Your task to perform on an android device: open app "Life360: Find Family & Friends" (install if not already installed), go to login, and select forgot password Image 0: 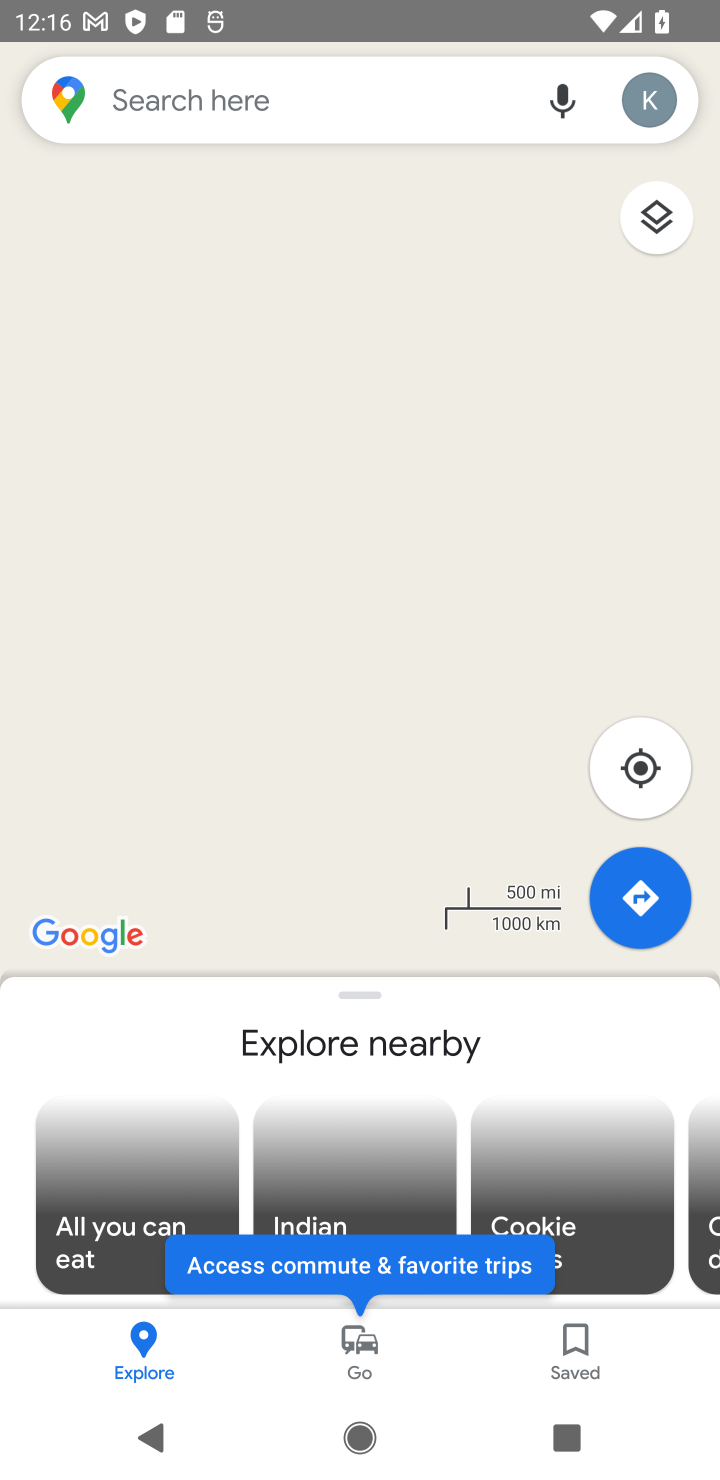
Step 0: press home button
Your task to perform on an android device: open app "Life360: Find Family & Friends" (install if not already installed), go to login, and select forgot password Image 1: 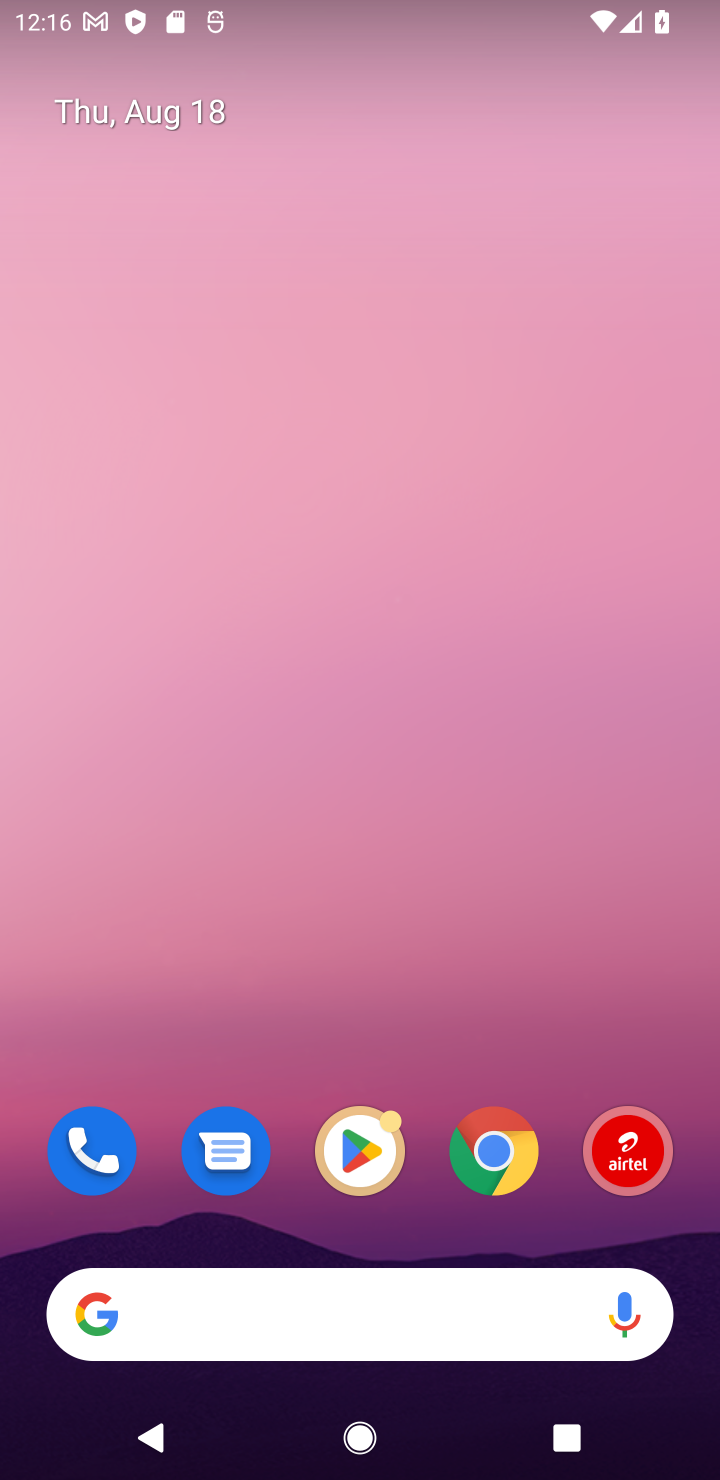
Step 1: drag from (375, 1187) to (327, 251)
Your task to perform on an android device: open app "Life360: Find Family & Friends" (install if not already installed), go to login, and select forgot password Image 2: 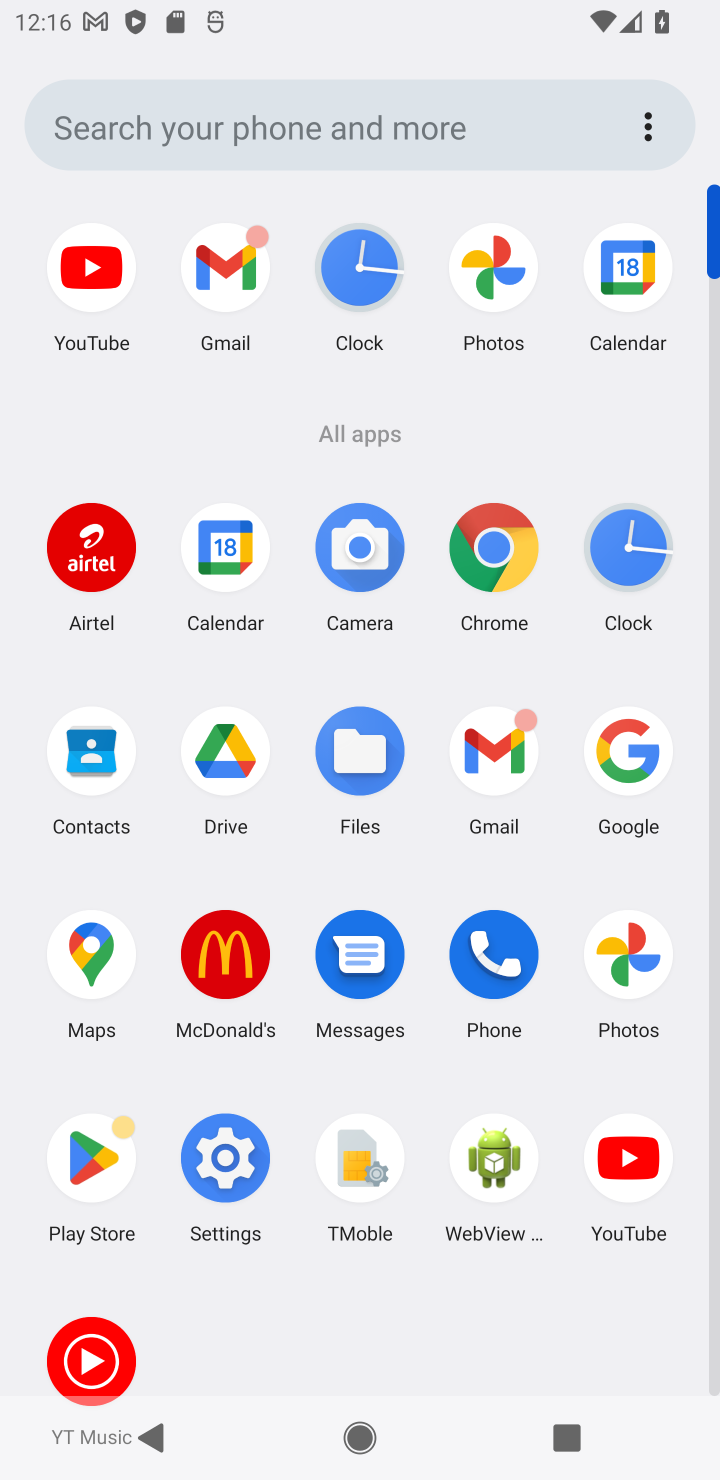
Step 2: click (92, 1146)
Your task to perform on an android device: open app "Life360: Find Family & Friends" (install if not already installed), go to login, and select forgot password Image 3: 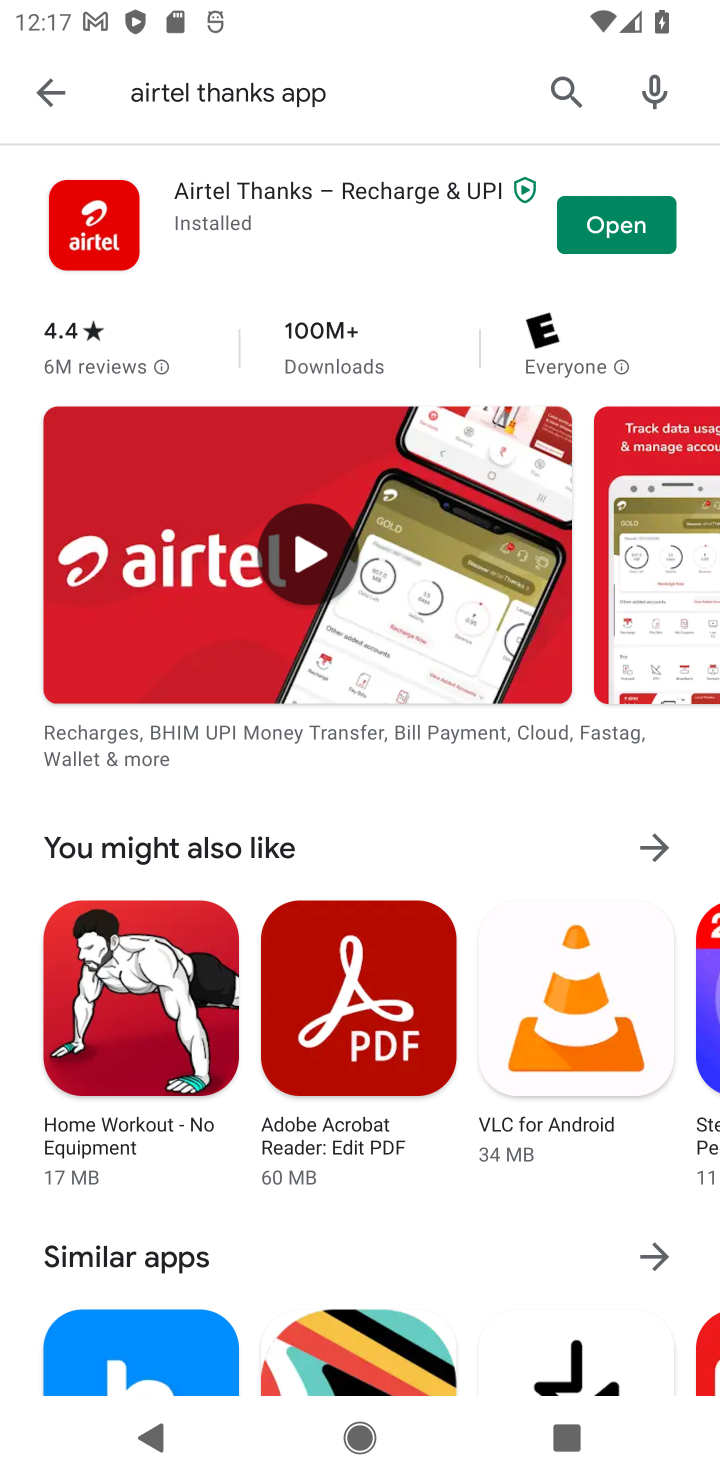
Step 3: click (38, 88)
Your task to perform on an android device: open app "Life360: Find Family & Friends" (install if not already installed), go to login, and select forgot password Image 4: 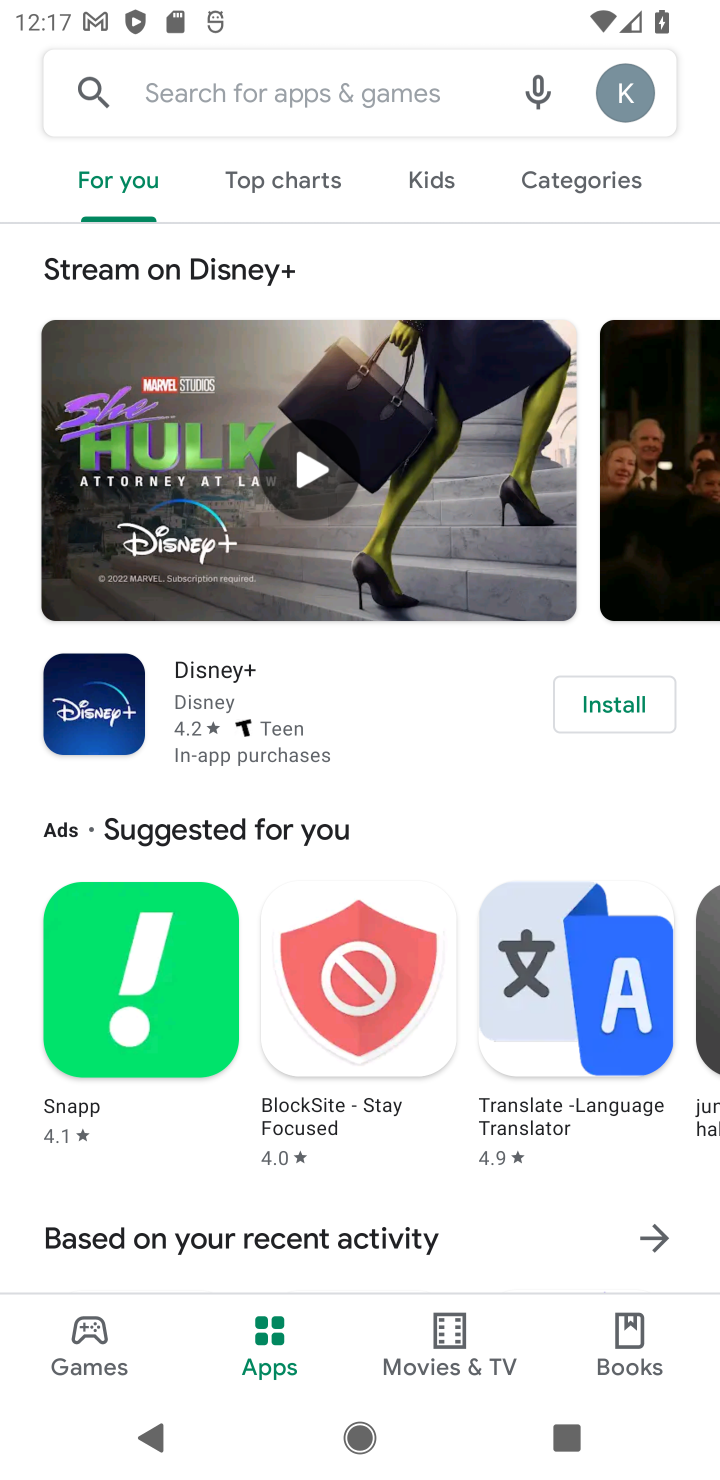
Step 4: click (237, 105)
Your task to perform on an android device: open app "Life360: Find Family & Friends" (install if not already installed), go to login, and select forgot password Image 5: 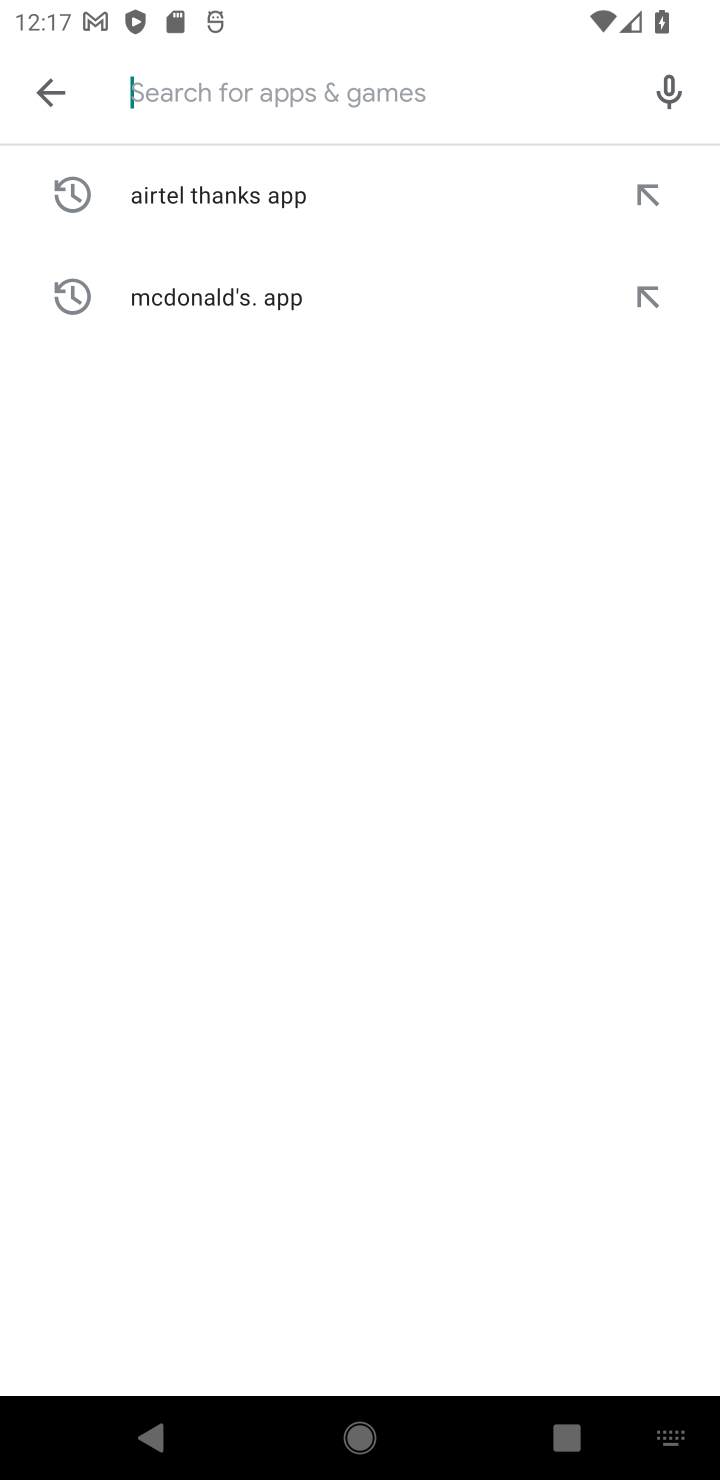
Step 5: type "Life360: Find Family & Friends"
Your task to perform on an android device: open app "Life360: Find Family & Friends" (install if not already installed), go to login, and select forgot password Image 6: 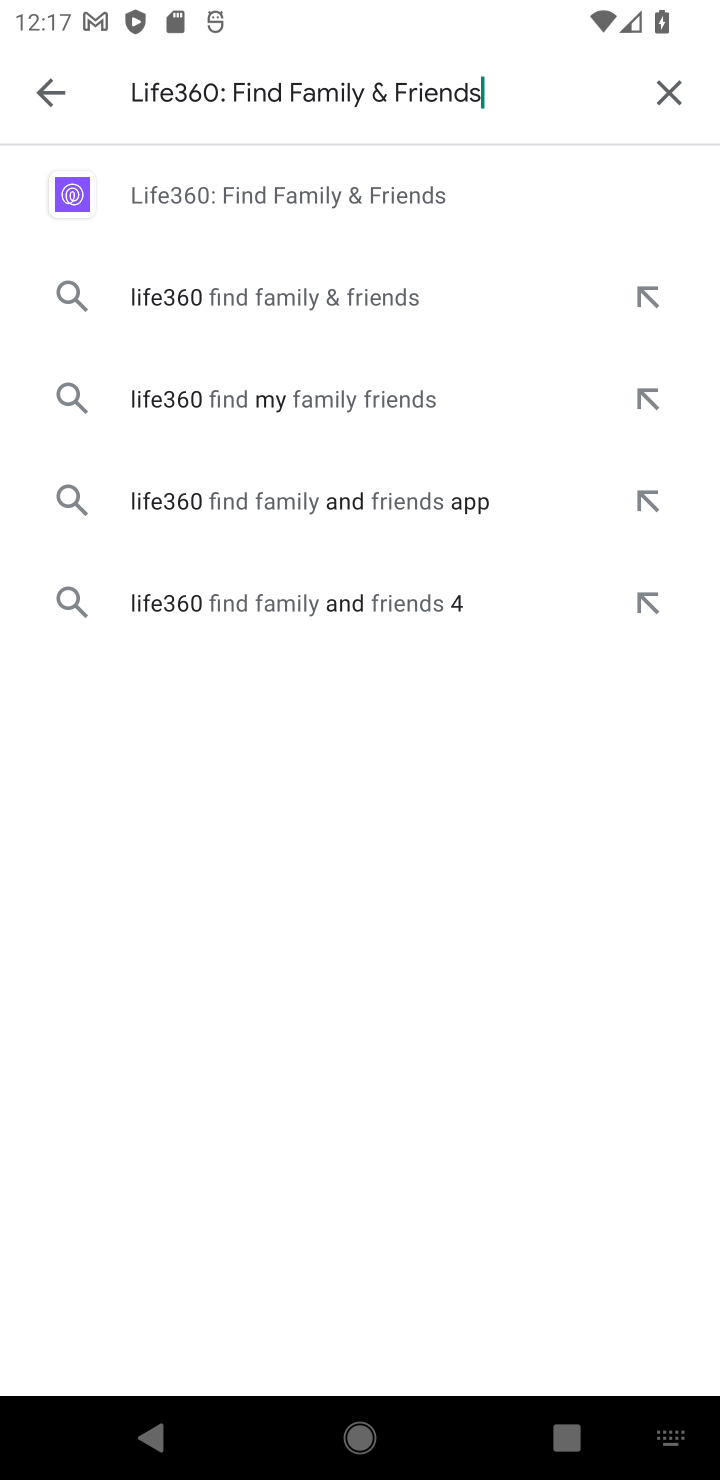
Step 6: click (362, 194)
Your task to perform on an android device: open app "Life360: Find Family & Friends" (install if not already installed), go to login, and select forgot password Image 7: 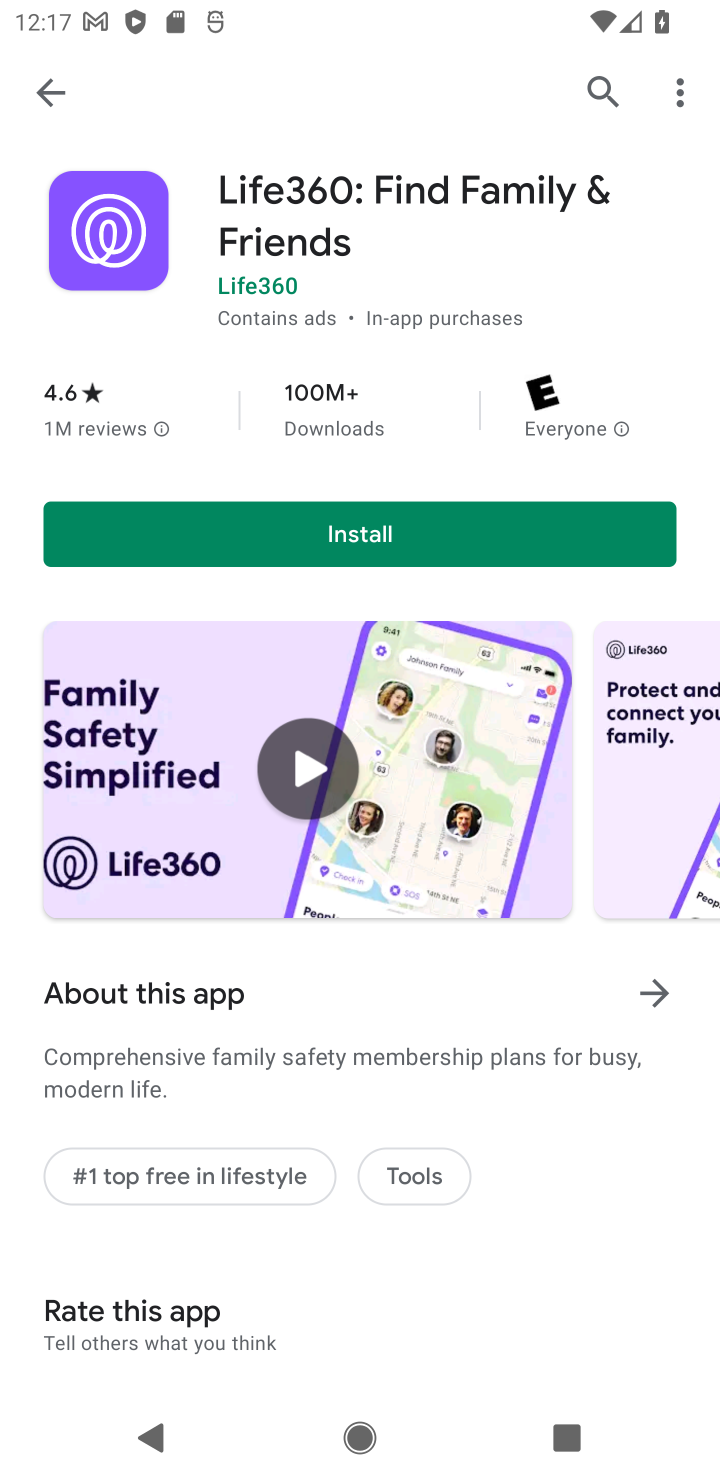
Step 7: click (338, 526)
Your task to perform on an android device: open app "Life360: Find Family & Friends" (install if not already installed), go to login, and select forgot password Image 8: 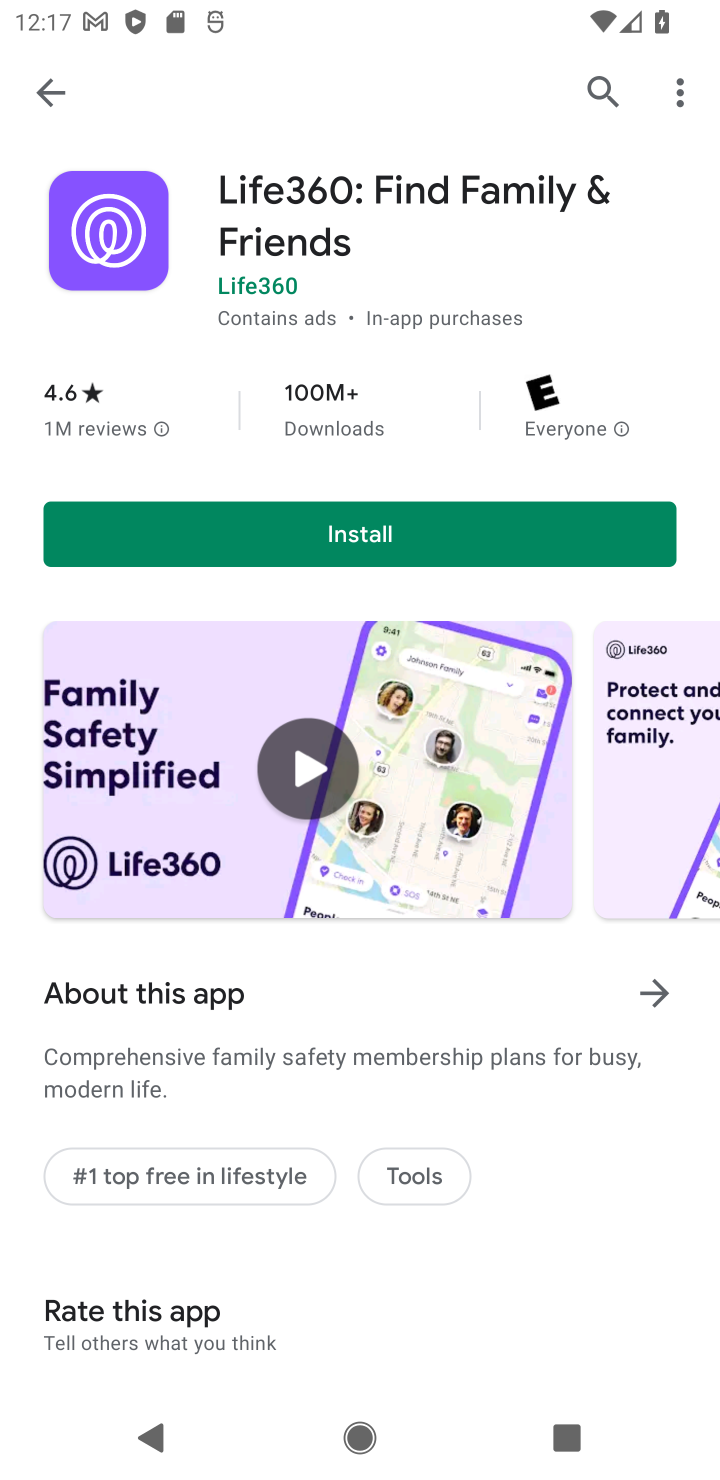
Step 8: click (338, 526)
Your task to perform on an android device: open app "Life360: Find Family & Friends" (install if not already installed), go to login, and select forgot password Image 9: 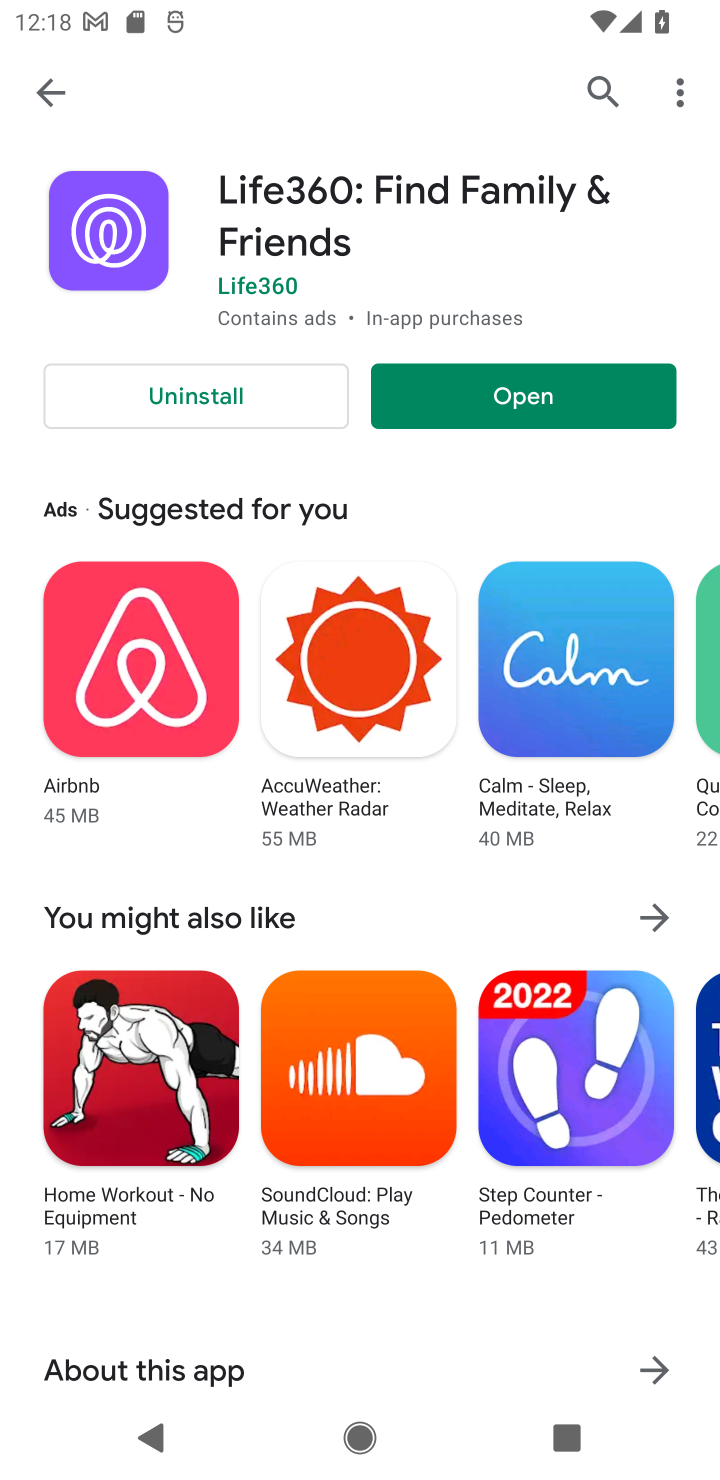
Step 9: click (475, 404)
Your task to perform on an android device: open app "Life360: Find Family & Friends" (install if not already installed), go to login, and select forgot password Image 10: 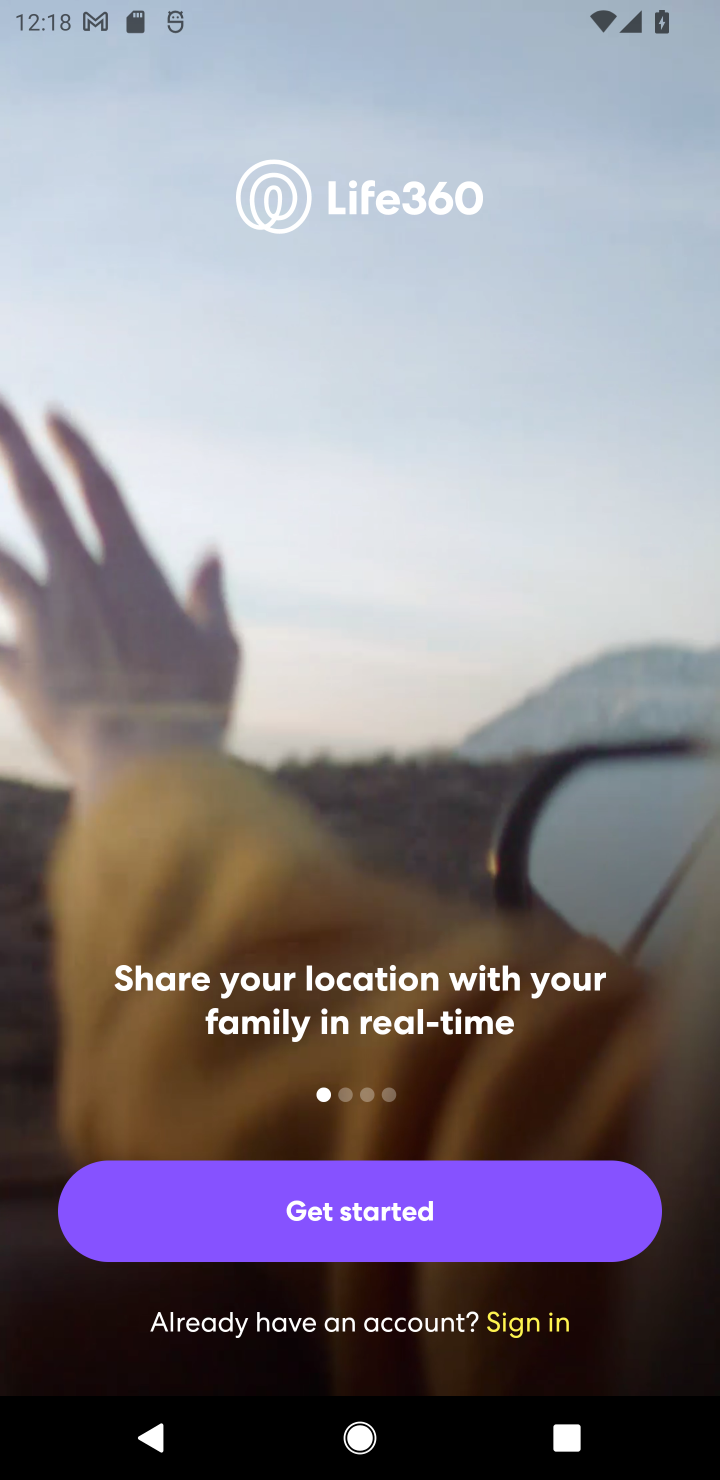
Step 10: click (526, 1321)
Your task to perform on an android device: open app "Life360: Find Family & Friends" (install if not already installed), go to login, and select forgot password Image 11: 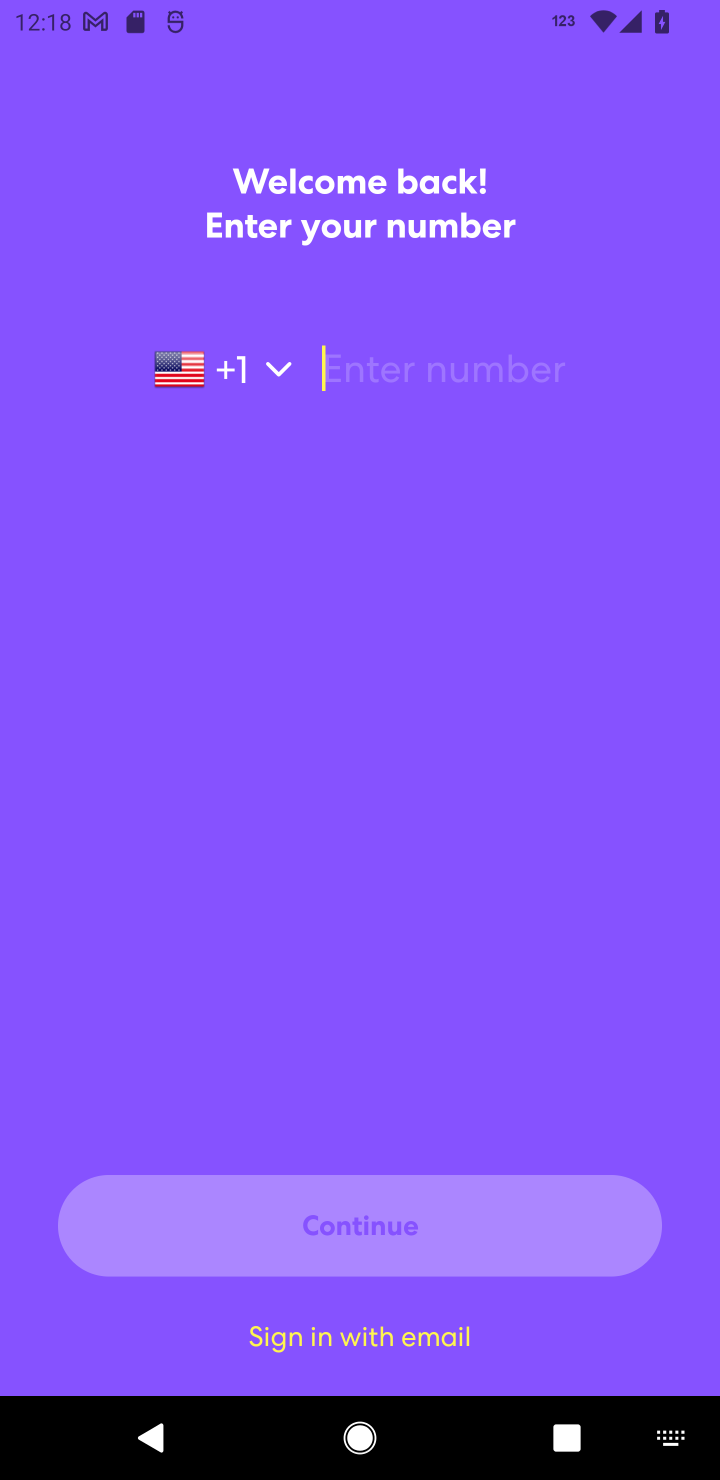
Step 11: task complete